Your task to perform on an android device: Open calendar and show me the second week of next month Image 0: 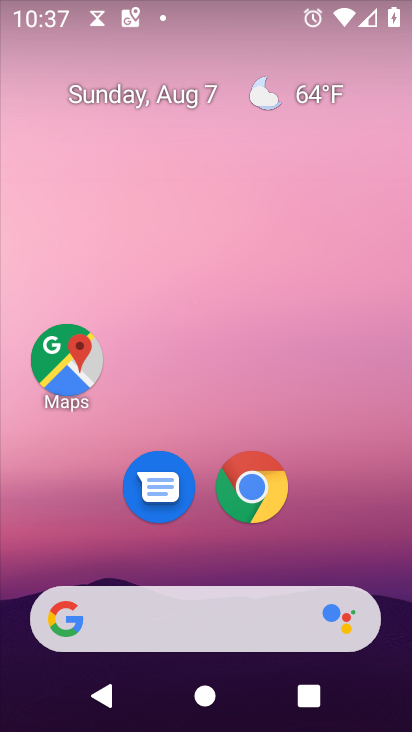
Step 0: drag from (401, 712) to (359, 41)
Your task to perform on an android device: Open calendar and show me the second week of next month Image 1: 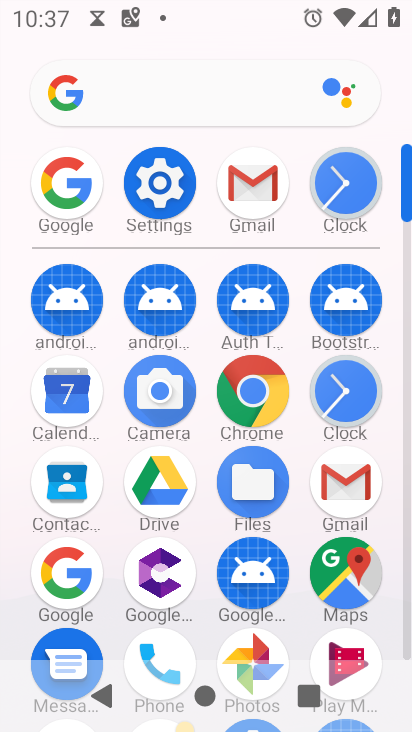
Step 1: click (68, 397)
Your task to perform on an android device: Open calendar and show me the second week of next month Image 2: 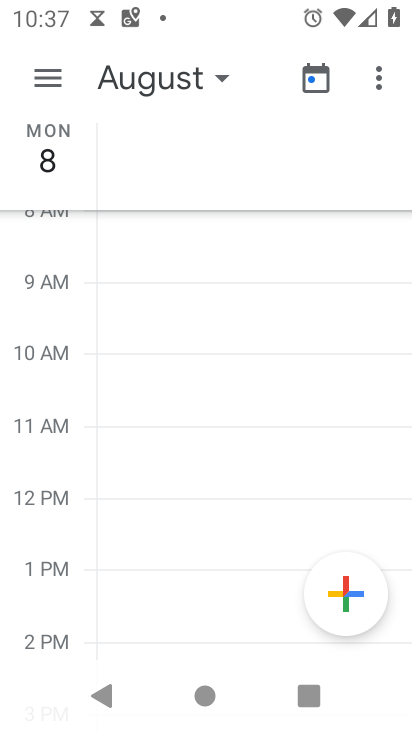
Step 2: click (374, 79)
Your task to perform on an android device: Open calendar and show me the second week of next month Image 3: 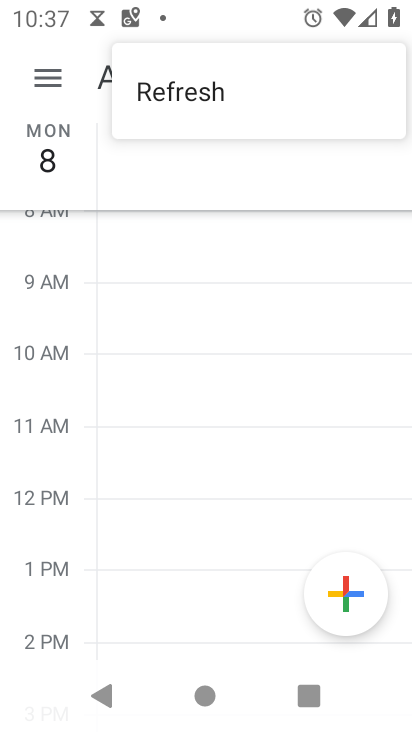
Step 3: click (202, 164)
Your task to perform on an android device: Open calendar and show me the second week of next month Image 4: 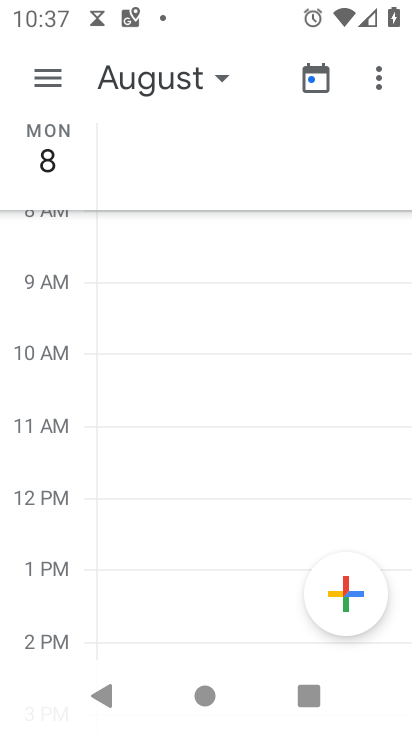
Step 4: click (218, 73)
Your task to perform on an android device: Open calendar and show me the second week of next month Image 5: 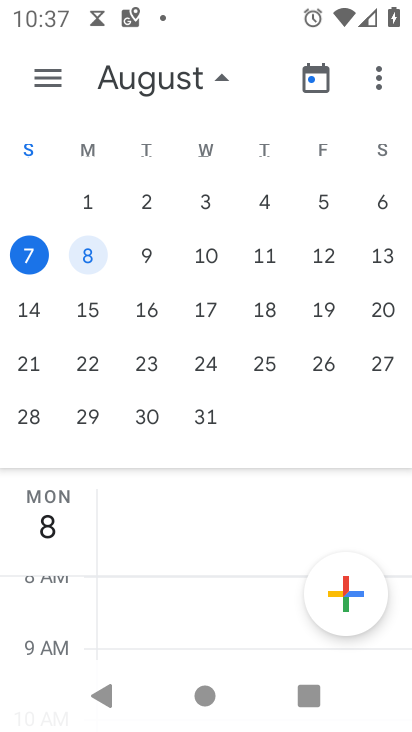
Step 5: drag from (393, 267) to (129, 283)
Your task to perform on an android device: Open calendar and show me the second week of next month Image 6: 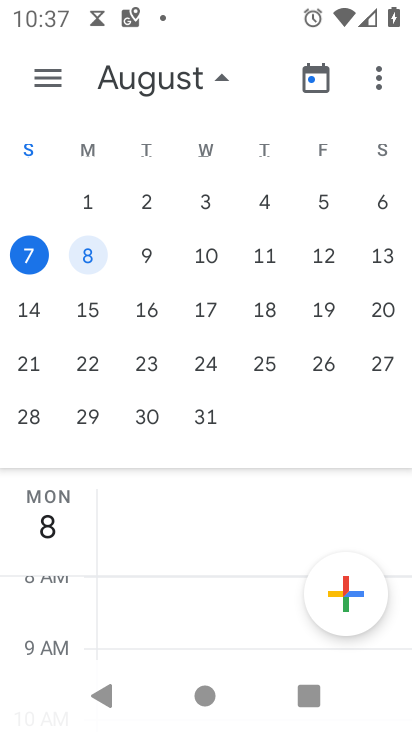
Step 6: drag from (407, 281) to (67, 274)
Your task to perform on an android device: Open calendar and show me the second week of next month Image 7: 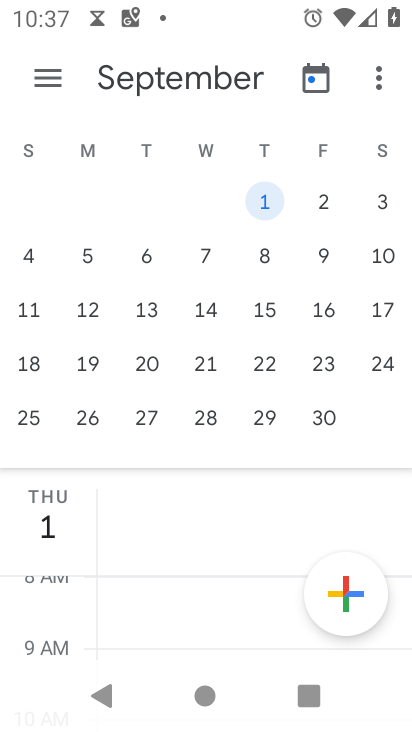
Step 7: click (261, 250)
Your task to perform on an android device: Open calendar and show me the second week of next month Image 8: 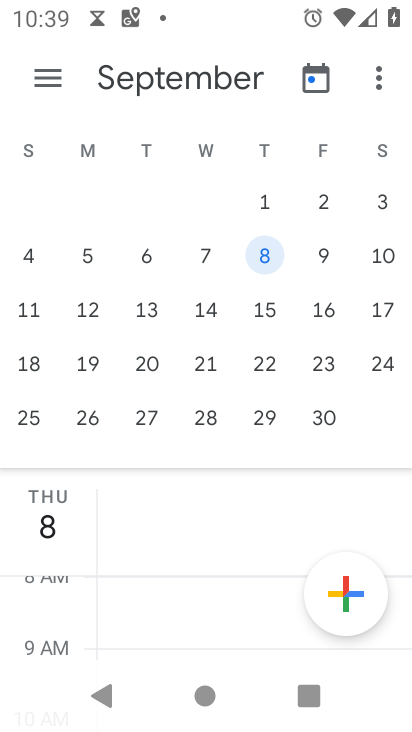
Step 8: click (51, 77)
Your task to perform on an android device: Open calendar and show me the second week of next month Image 9: 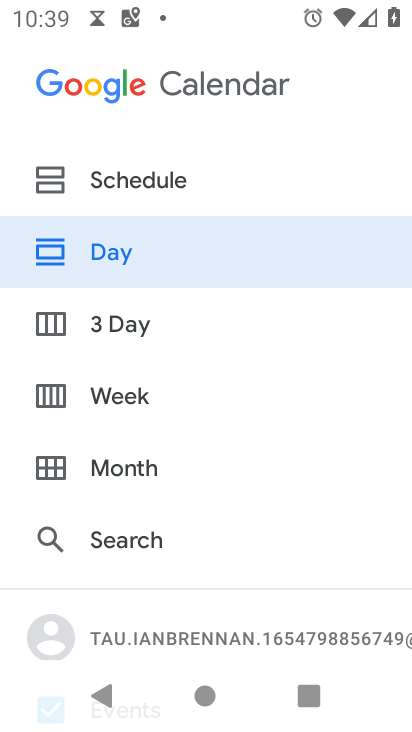
Step 9: click (123, 397)
Your task to perform on an android device: Open calendar and show me the second week of next month Image 10: 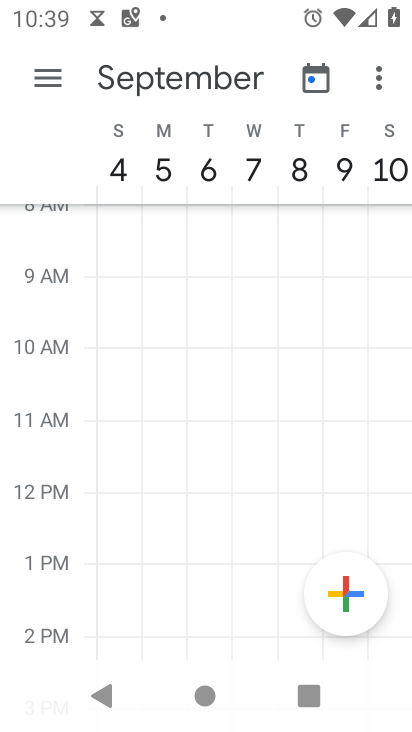
Step 10: task complete